Your task to perform on an android device: Open Google Chrome Image 0: 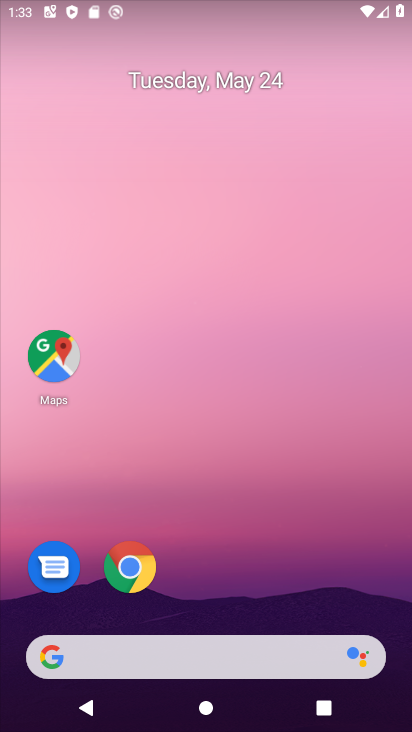
Step 0: click (137, 585)
Your task to perform on an android device: Open Google Chrome Image 1: 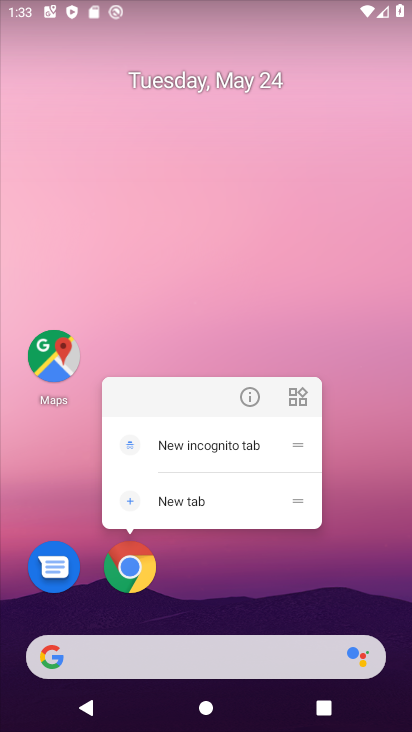
Step 1: click (136, 576)
Your task to perform on an android device: Open Google Chrome Image 2: 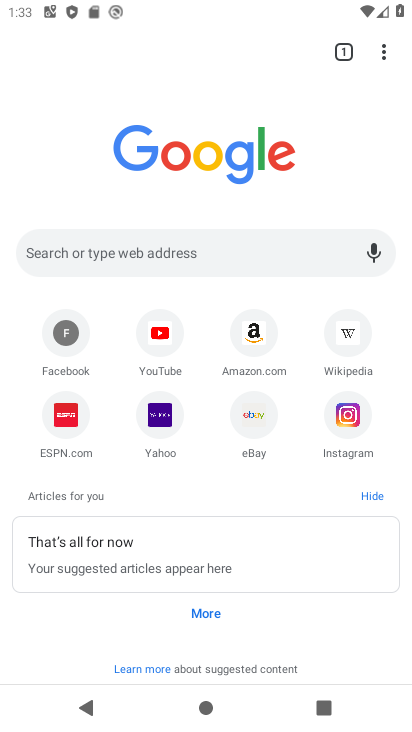
Step 2: task complete